Your task to perform on an android device: star an email in the gmail app Image 0: 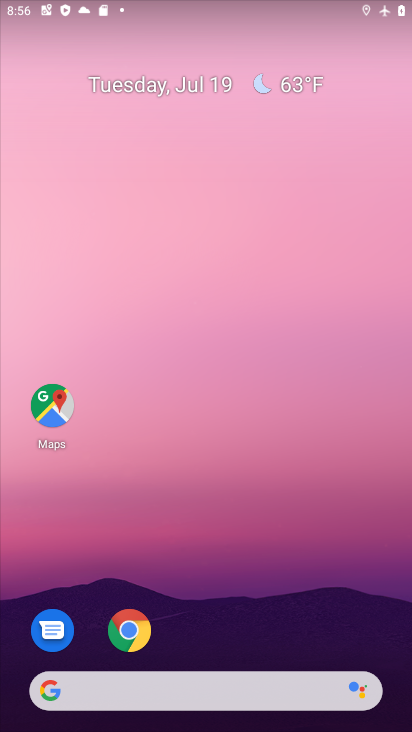
Step 0: drag from (234, 691) to (233, 159)
Your task to perform on an android device: star an email in the gmail app Image 1: 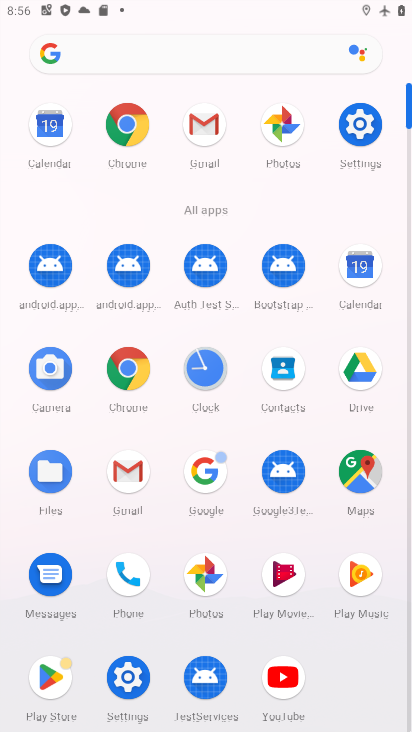
Step 1: click (204, 123)
Your task to perform on an android device: star an email in the gmail app Image 2: 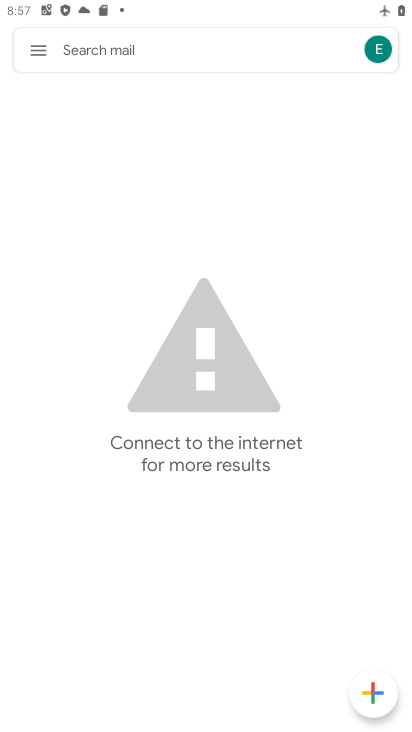
Step 2: click (36, 54)
Your task to perform on an android device: star an email in the gmail app Image 3: 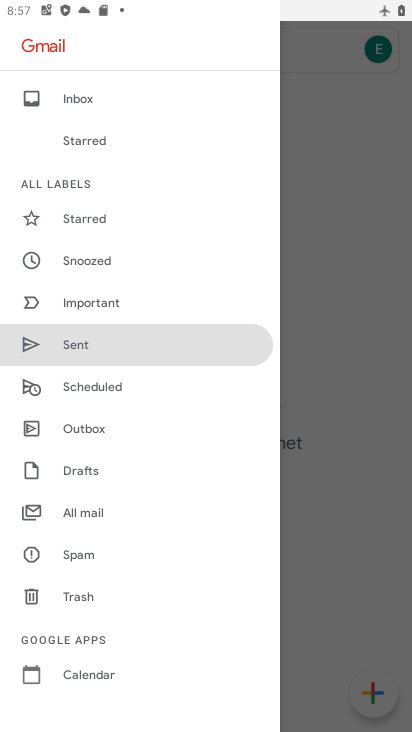
Step 3: click (82, 103)
Your task to perform on an android device: star an email in the gmail app Image 4: 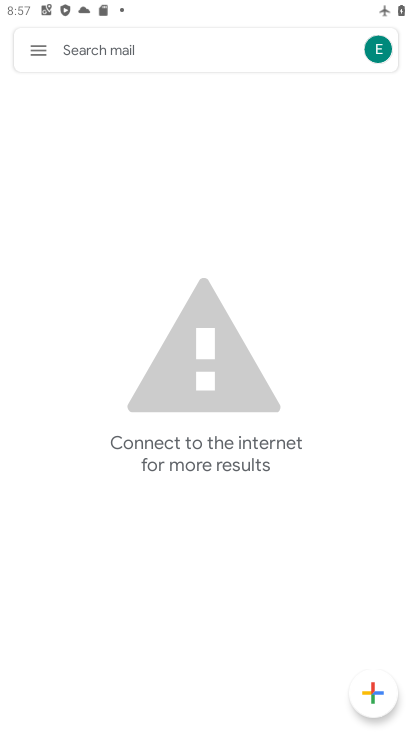
Step 4: click (44, 59)
Your task to perform on an android device: star an email in the gmail app Image 5: 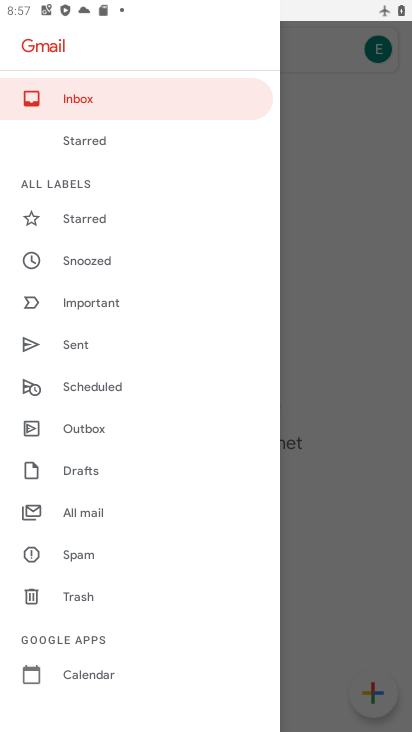
Step 5: click (93, 506)
Your task to perform on an android device: star an email in the gmail app Image 6: 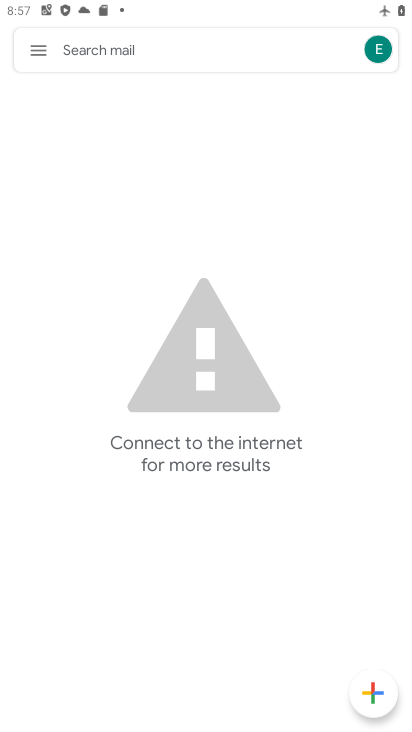
Step 6: task complete